Your task to perform on an android device: turn off priority inbox in the gmail app Image 0: 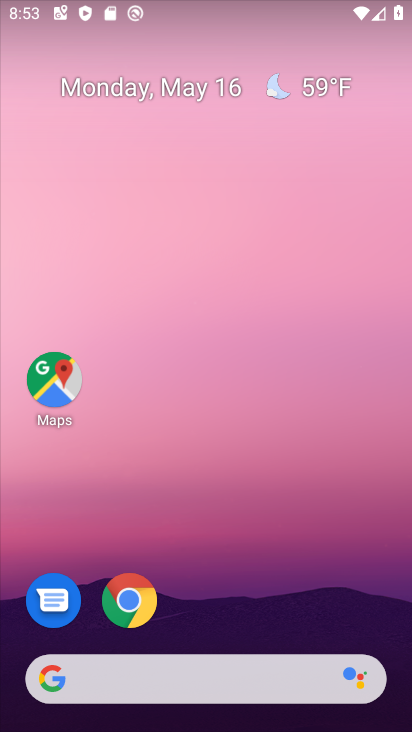
Step 0: drag from (168, 553) to (212, 340)
Your task to perform on an android device: turn off priority inbox in the gmail app Image 1: 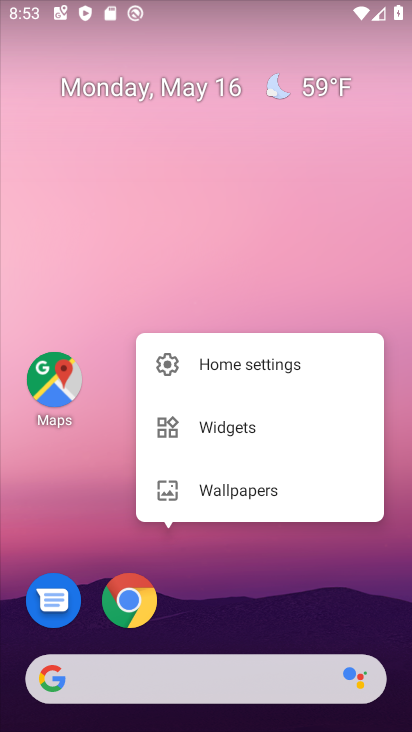
Step 1: click (240, 244)
Your task to perform on an android device: turn off priority inbox in the gmail app Image 2: 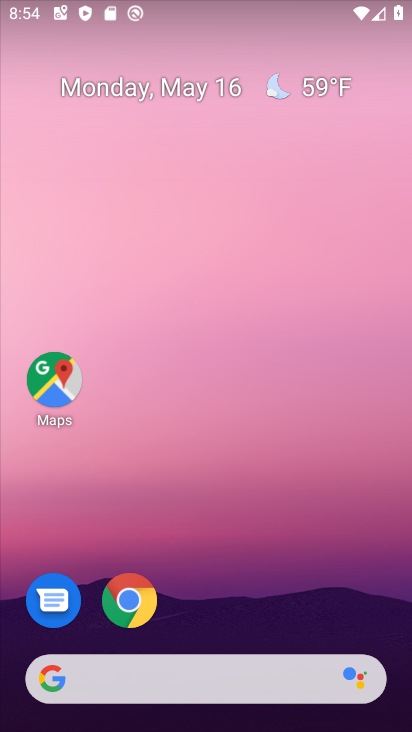
Step 2: drag from (168, 672) to (220, 373)
Your task to perform on an android device: turn off priority inbox in the gmail app Image 3: 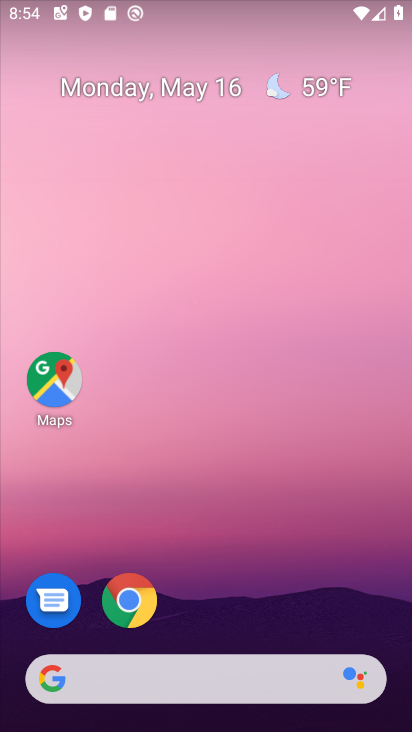
Step 3: drag from (165, 619) to (196, 226)
Your task to perform on an android device: turn off priority inbox in the gmail app Image 4: 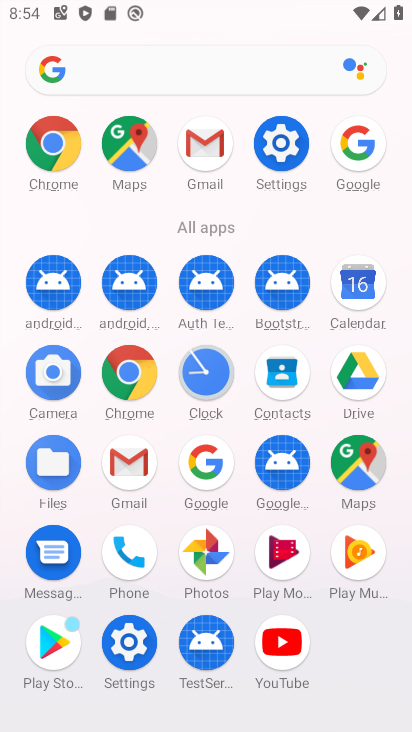
Step 4: click (216, 139)
Your task to perform on an android device: turn off priority inbox in the gmail app Image 5: 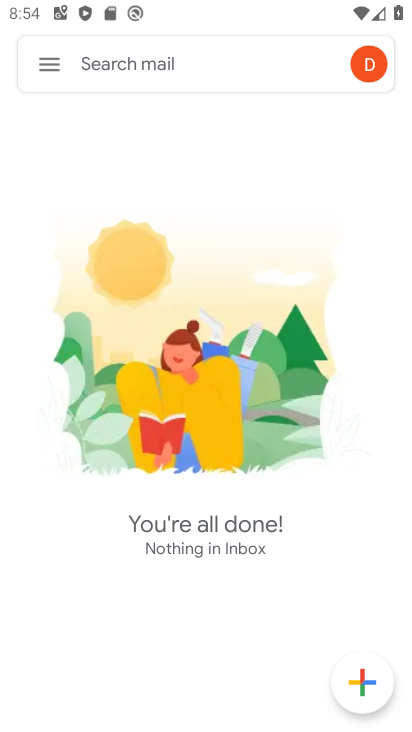
Step 5: click (48, 72)
Your task to perform on an android device: turn off priority inbox in the gmail app Image 6: 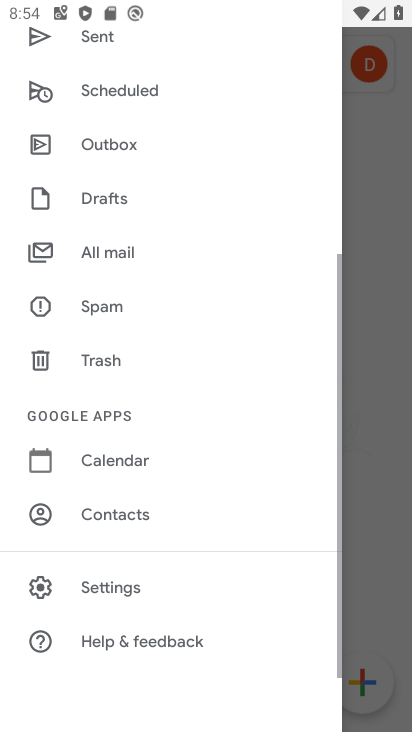
Step 6: click (125, 592)
Your task to perform on an android device: turn off priority inbox in the gmail app Image 7: 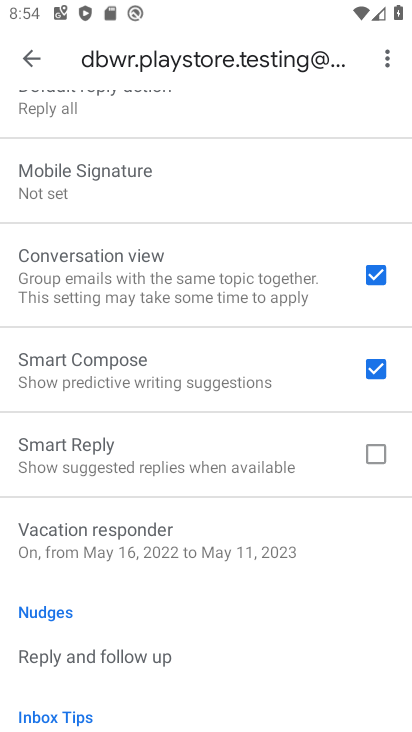
Step 7: task complete